Your task to perform on an android device: Go to internet settings Image 0: 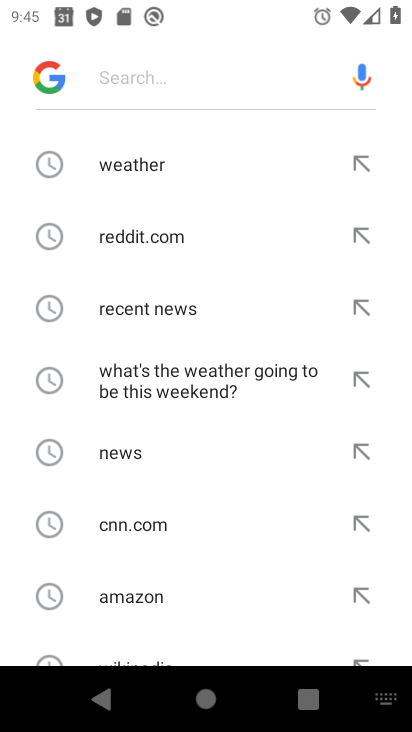
Step 0: drag from (215, 22) to (225, 560)
Your task to perform on an android device: Go to internet settings Image 1: 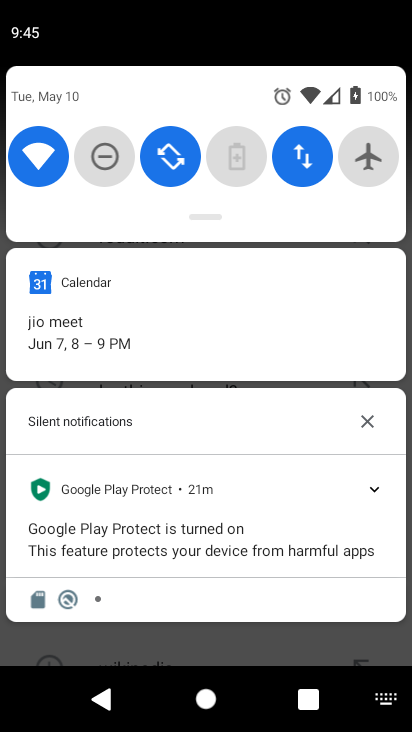
Step 1: click (323, 164)
Your task to perform on an android device: Go to internet settings Image 2: 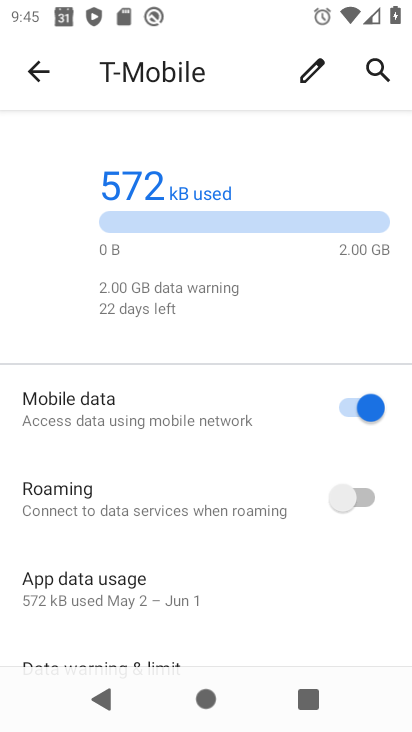
Step 2: task complete